Your task to perform on an android device: move an email to a new category in the gmail app Image 0: 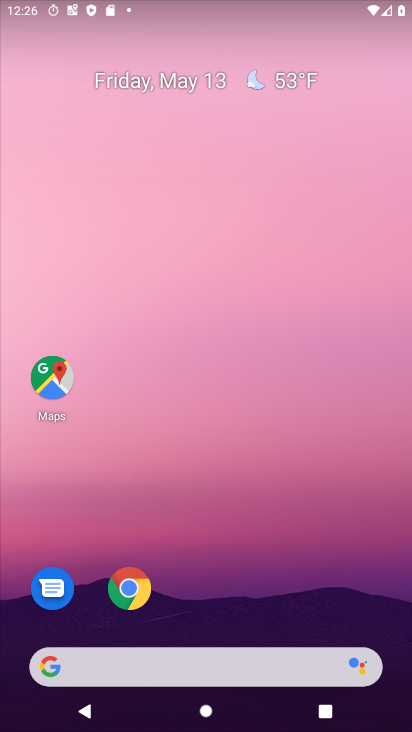
Step 0: drag from (311, 579) to (303, 235)
Your task to perform on an android device: move an email to a new category in the gmail app Image 1: 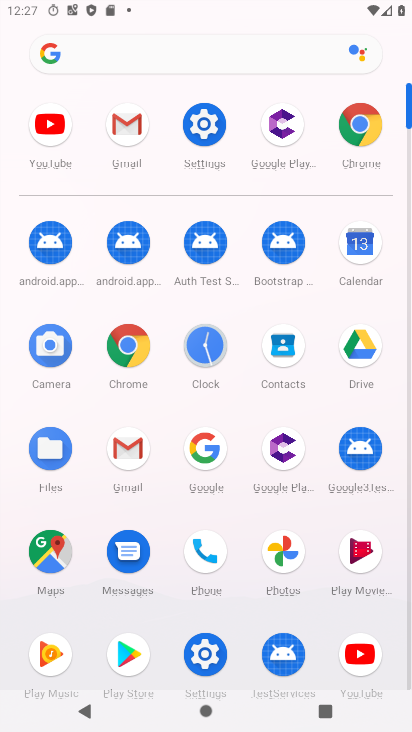
Step 1: click (121, 452)
Your task to perform on an android device: move an email to a new category in the gmail app Image 2: 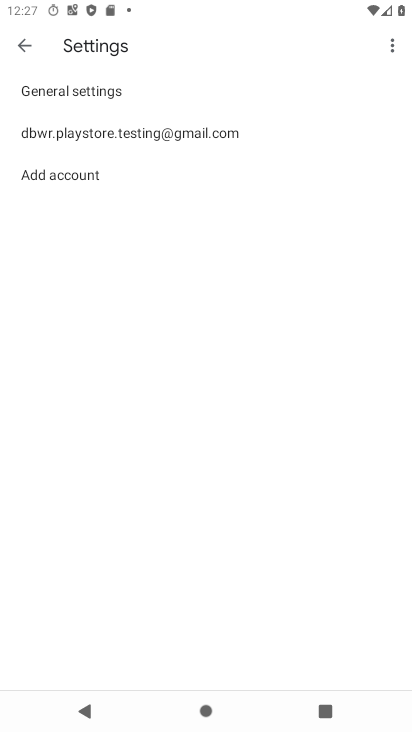
Step 2: click (18, 36)
Your task to perform on an android device: move an email to a new category in the gmail app Image 3: 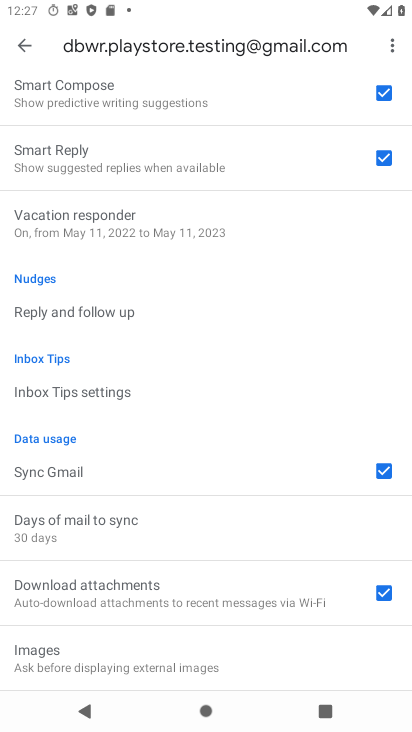
Step 3: click (20, 48)
Your task to perform on an android device: move an email to a new category in the gmail app Image 4: 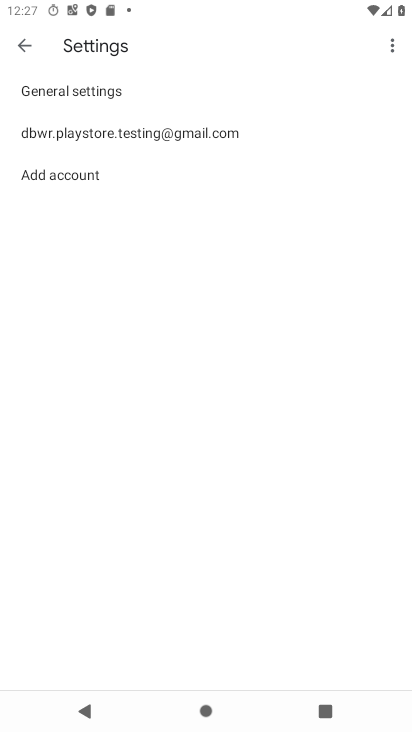
Step 4: click (24, 50)
Your task to perform on an android device: move an email to a new category in the gmail app Image 5: 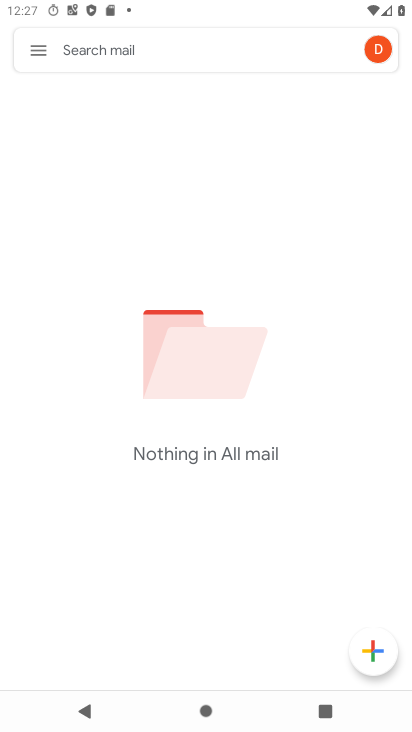
Step 5: click (24, 50)
Your task to perform on an android device: move an email to a new category in the gmail app Image 6: 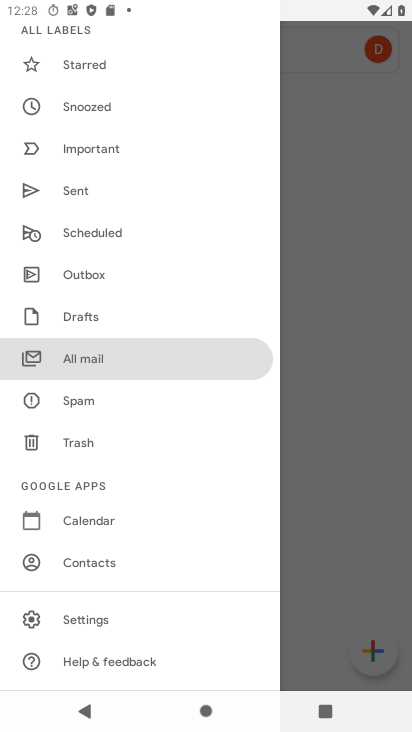
Step 6: drag from (176, 617) to (217, 241)
Your task to perform on an android device: move an email to a new category in the gmail app Image 7: 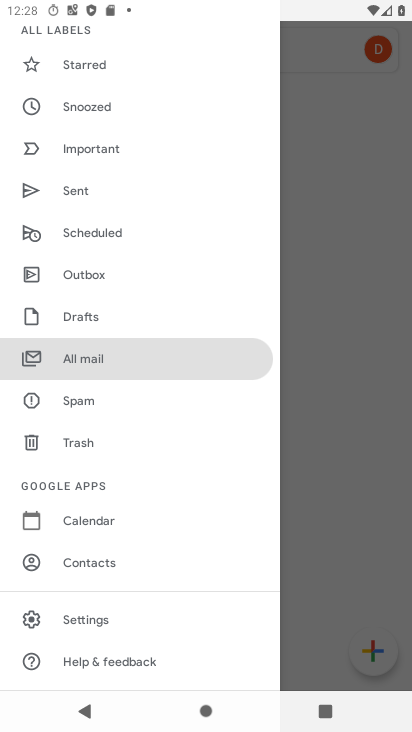
Step 7: click (80, 612)
Your task to perform on an android device: move an email to a new category in the gmail app Image 8: 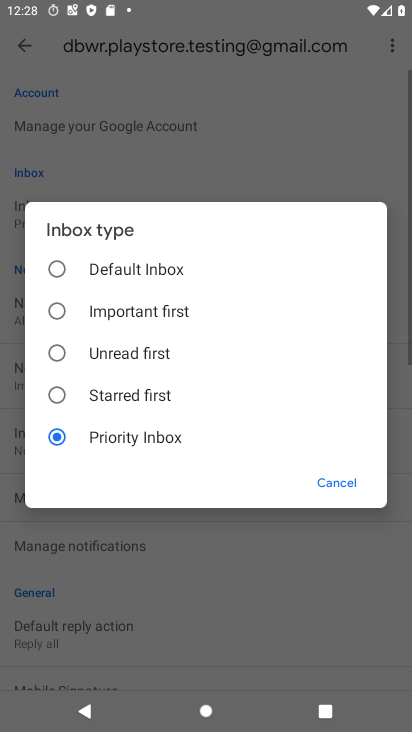
Step 8: click (156, 157)
Your task to perform on an android device: move an email to a new category in the gmail app Image 9: 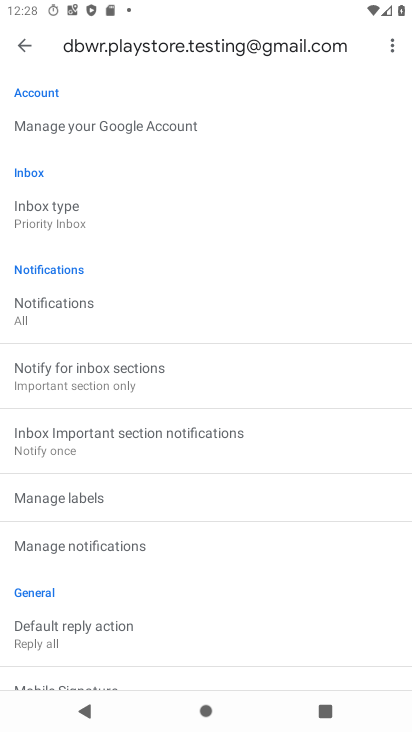
Step 9: click (29, 44)
Your task to perform on an android device: move an email to a new category in the gmail app Image 10: 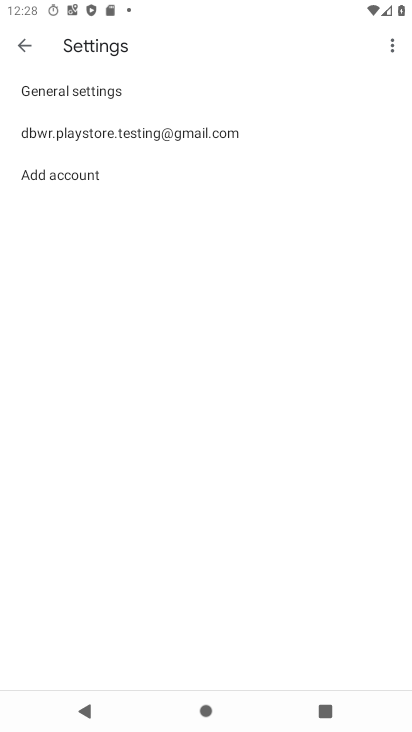
Step 10: click (28, 46)
Your task to perform on an android device: move an email to a new category in the gmail app Image 11: 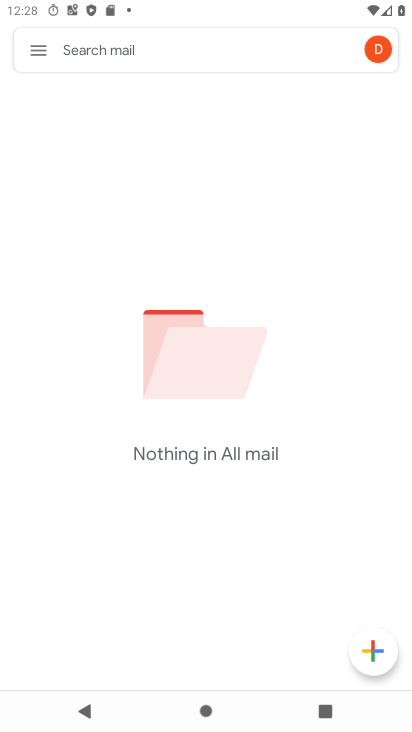
Step 11: click (36, 52)
Your task to perform on an android device: move an email to a new category in the gmail app Image 12: 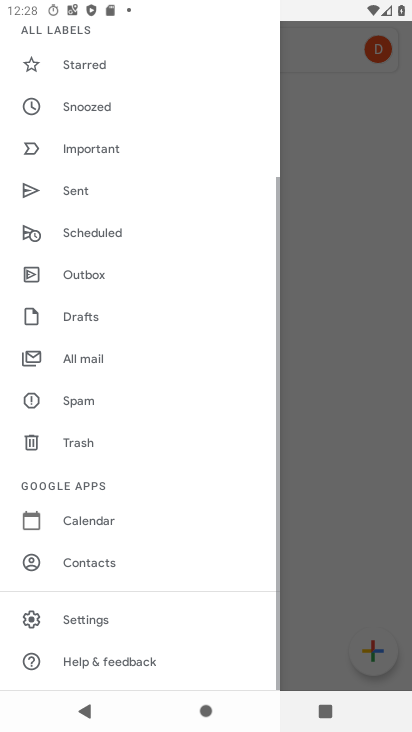
Step 12: click (343, 225)
Your task to perform on an android device: move an email to a new category in the gmail app Image 13: 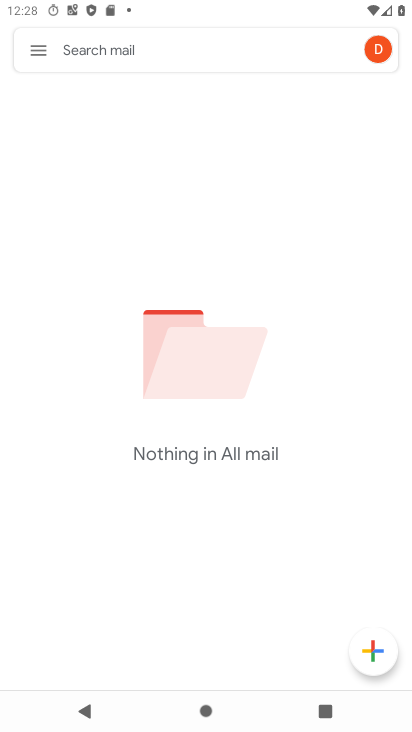
Step 13: task complete